Your task to perform on an android device: empty trash in the gmail app Image 0: 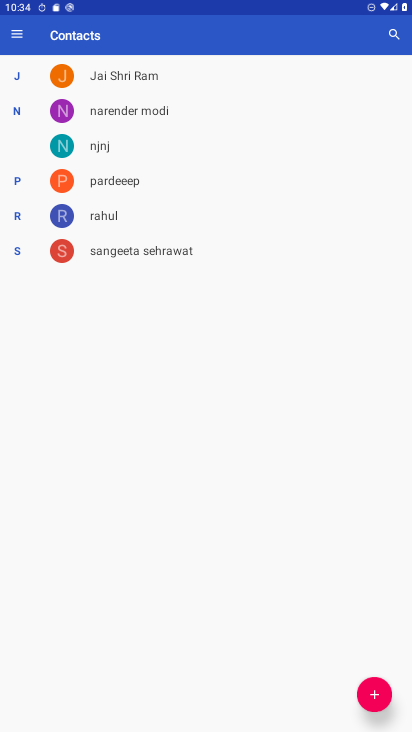
Step 0: press home button
Your task to perform on an android device: empty trash in the gmail app Image 1: 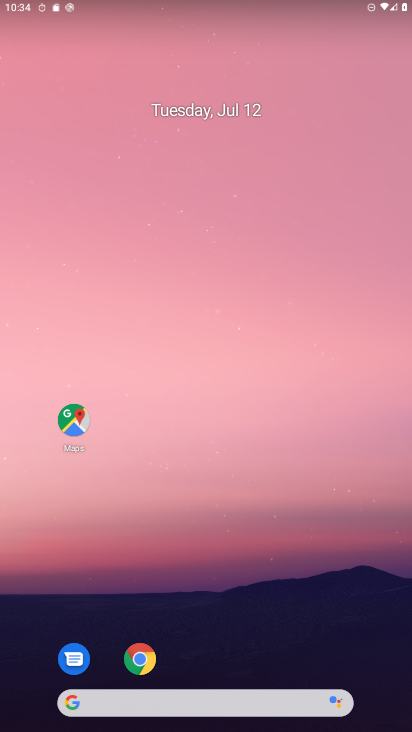
Step 1: drag from (234, 730) to (211, 352)
Your task to perform on an android device: empty trash in the gmail app Image 2: 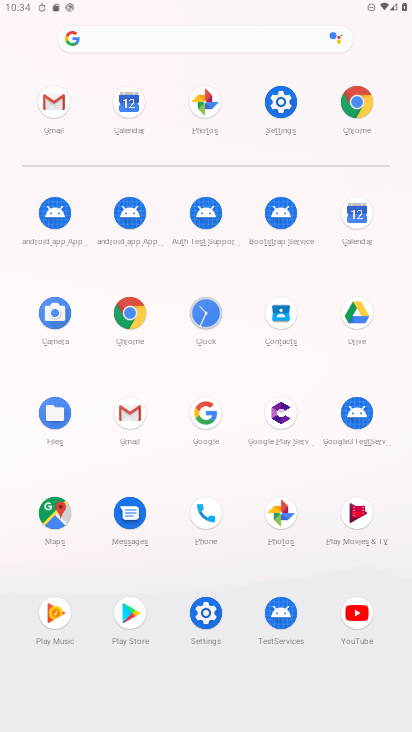
Step 2: click (135, 411)
Your task to perform on an android device: empty trash in the gmail app Image 3: 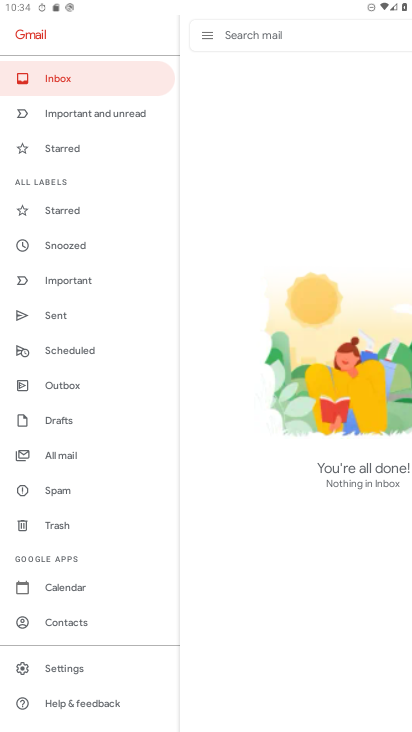
Step 3: click (65, 523)
Your task to perform on an android device: empty trash in the gmail app Image 4: 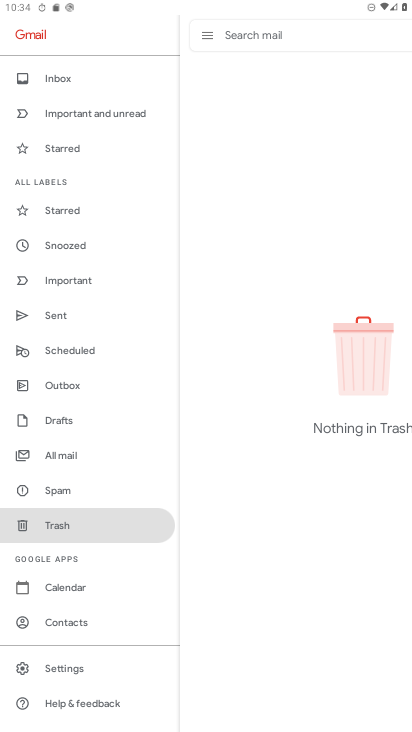
Step 4: task complete